Your task to perform on an android device: Clear the cart on walmart.com. Image 0: 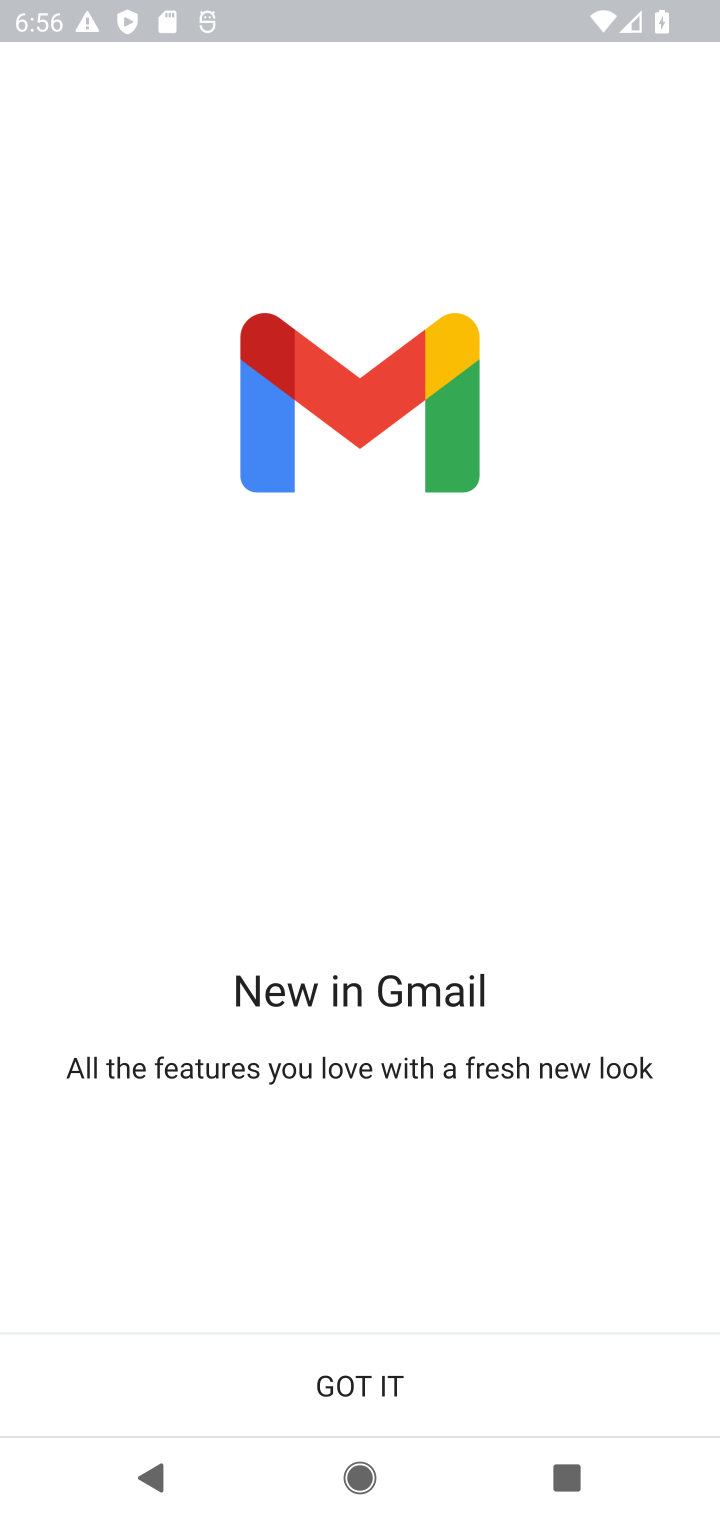
Step 0: press home button
Your task to perform on an android device: Clear the cart on walmart.com. Image 1: 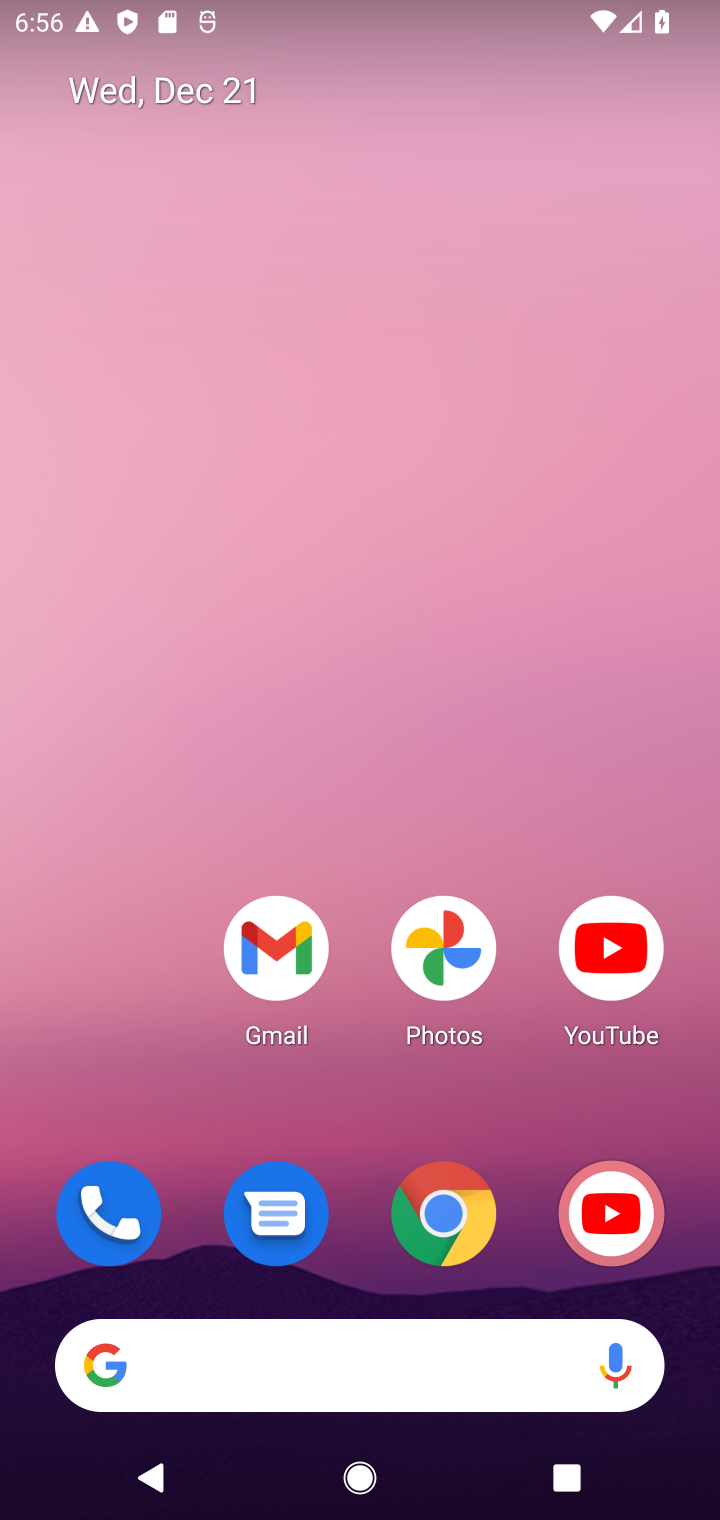
Step 1: click (436, 1191)
Your task to perform on an android device: Clear the cart on walmart.com. Image 2: 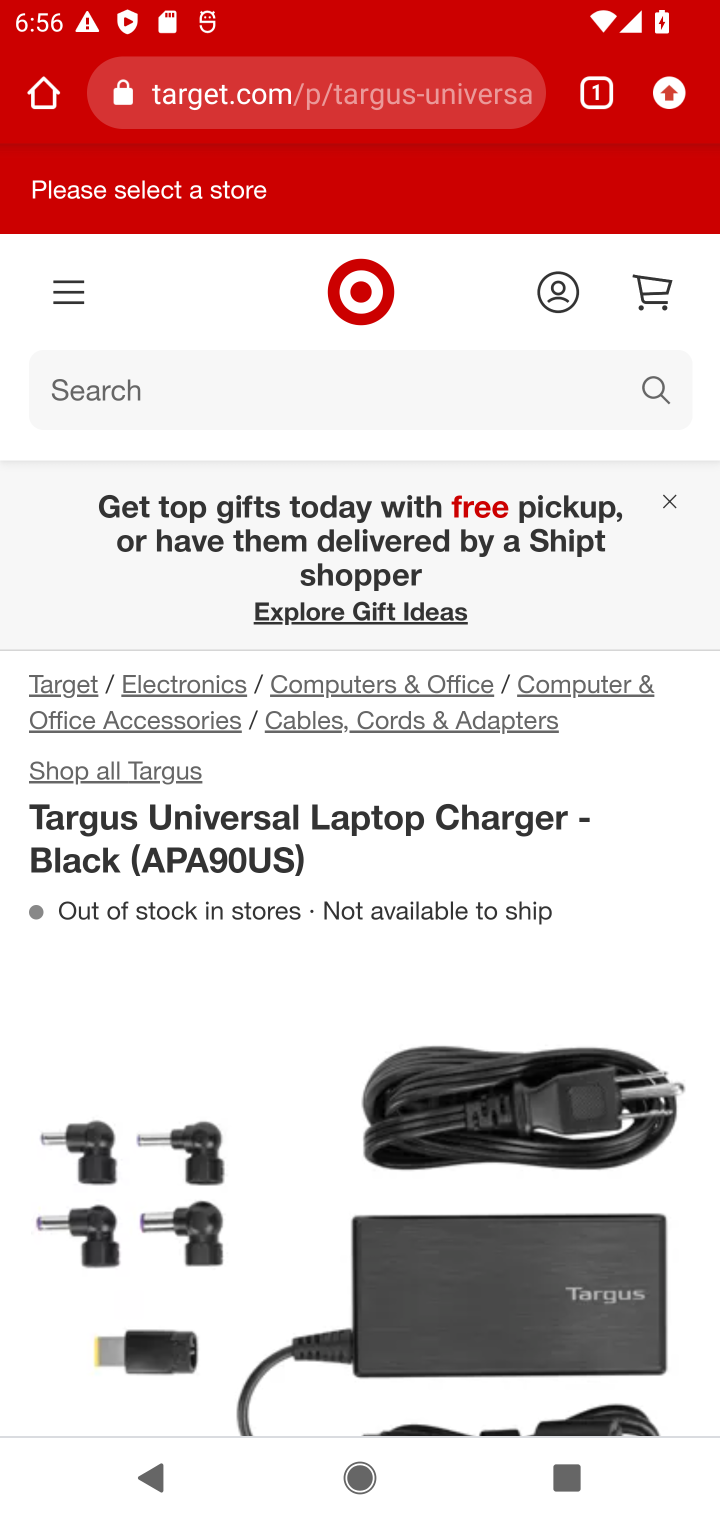
Step 2: click (291, 108)
Your task to perform on an android device: Clear the cart on walmart.com. Image 3: 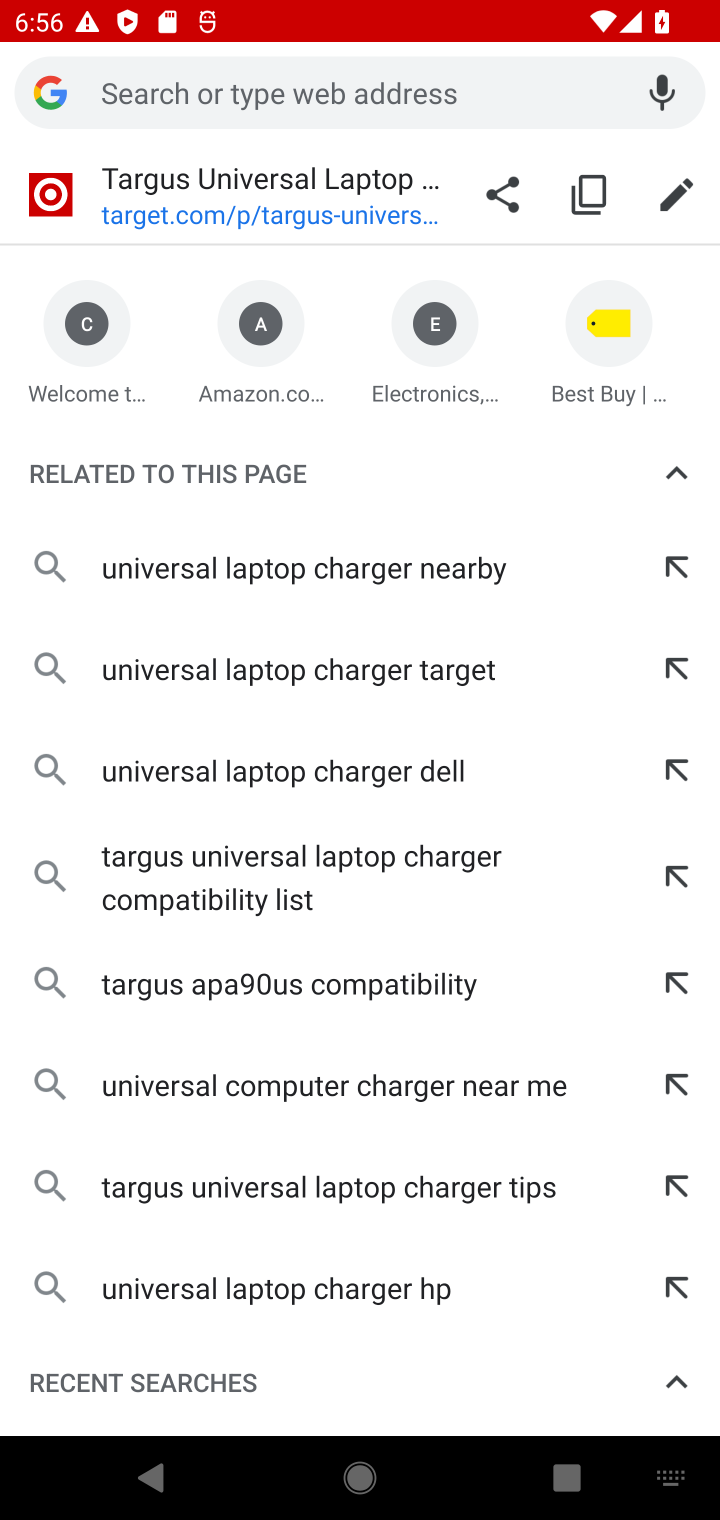
Step 3: type "walmart"
Your task to perform on an android device: Clear the cart on walmart.com. Image 4: 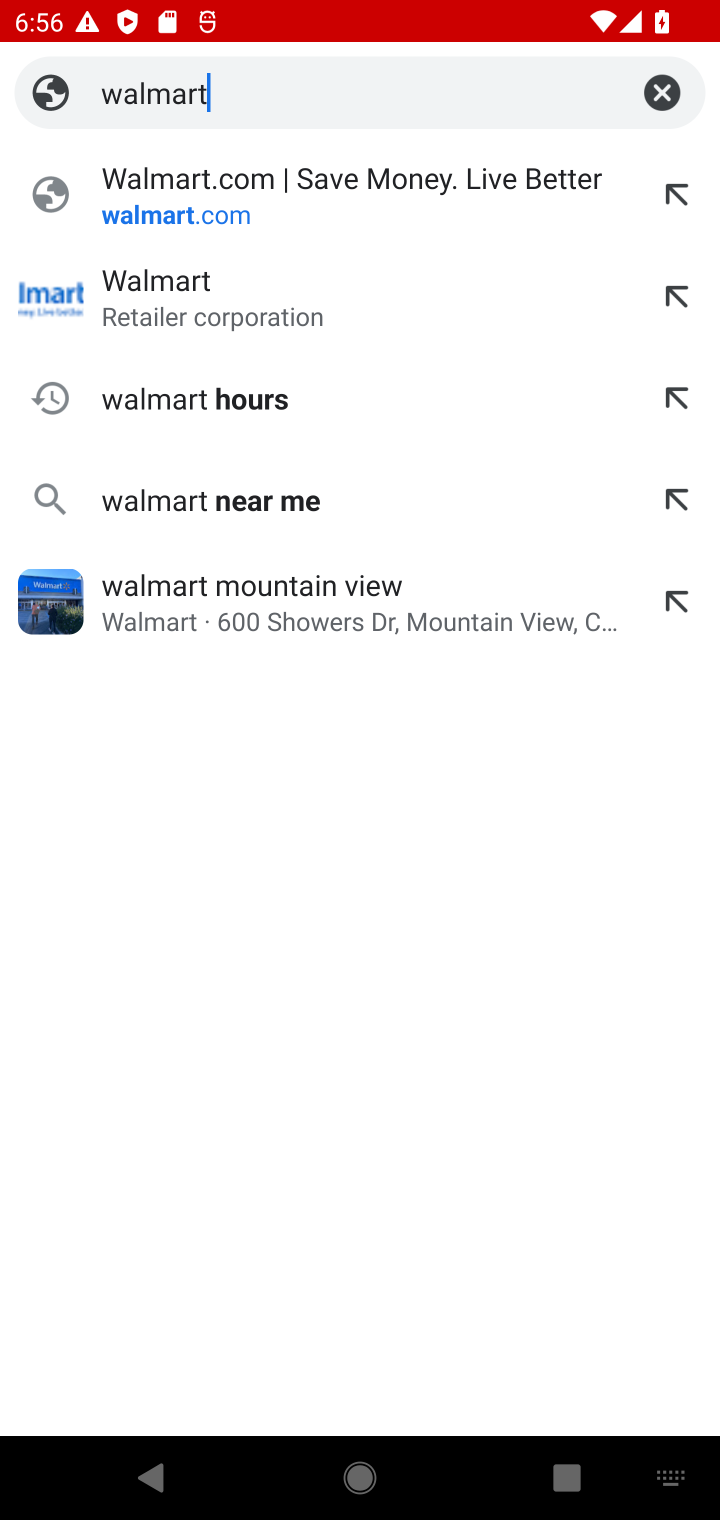
Step 4: click (230, 170)
Your task to perform on an android device: Clear the cart on walmart.com. Image 5: 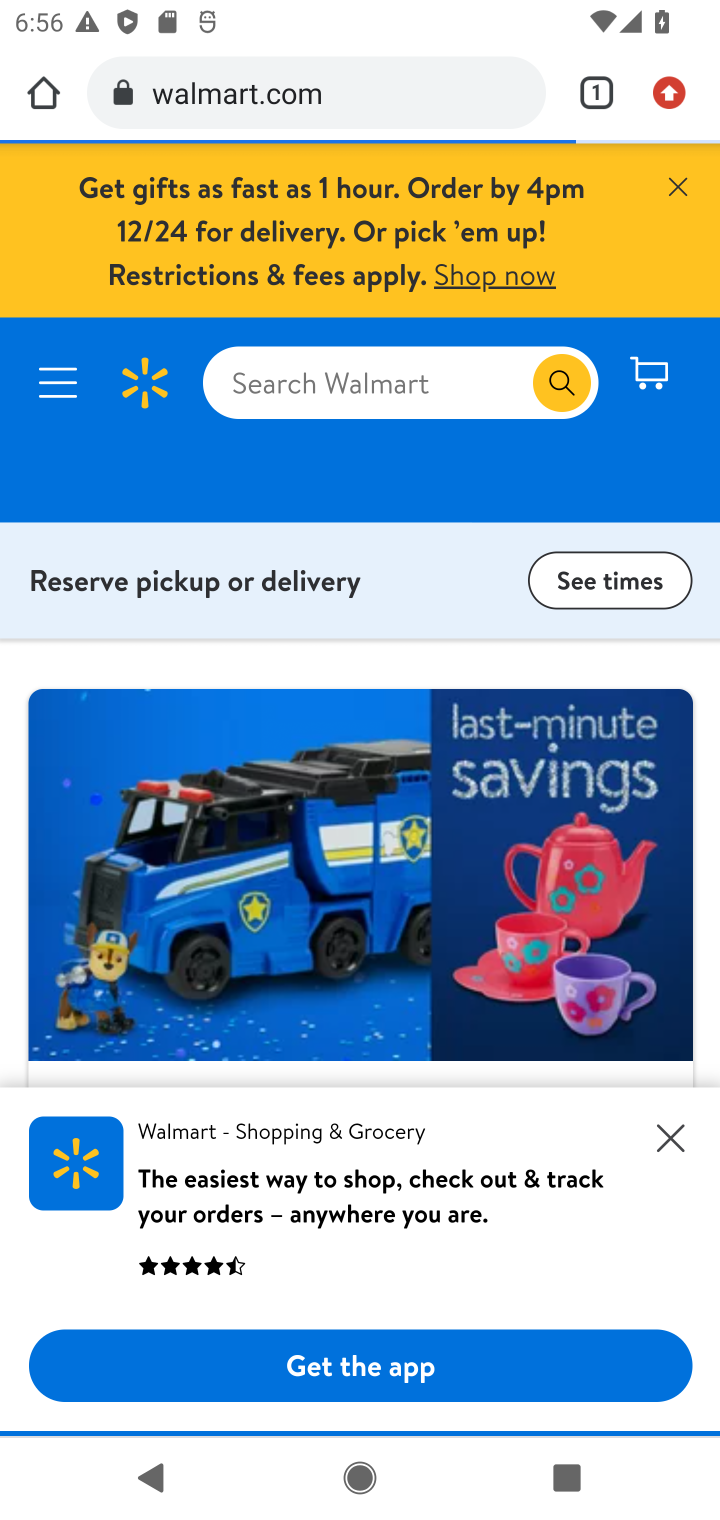
Step 5: click (670, 190)
Your task to perform on an android device: Clear the cart on walmart.com. Image 6: 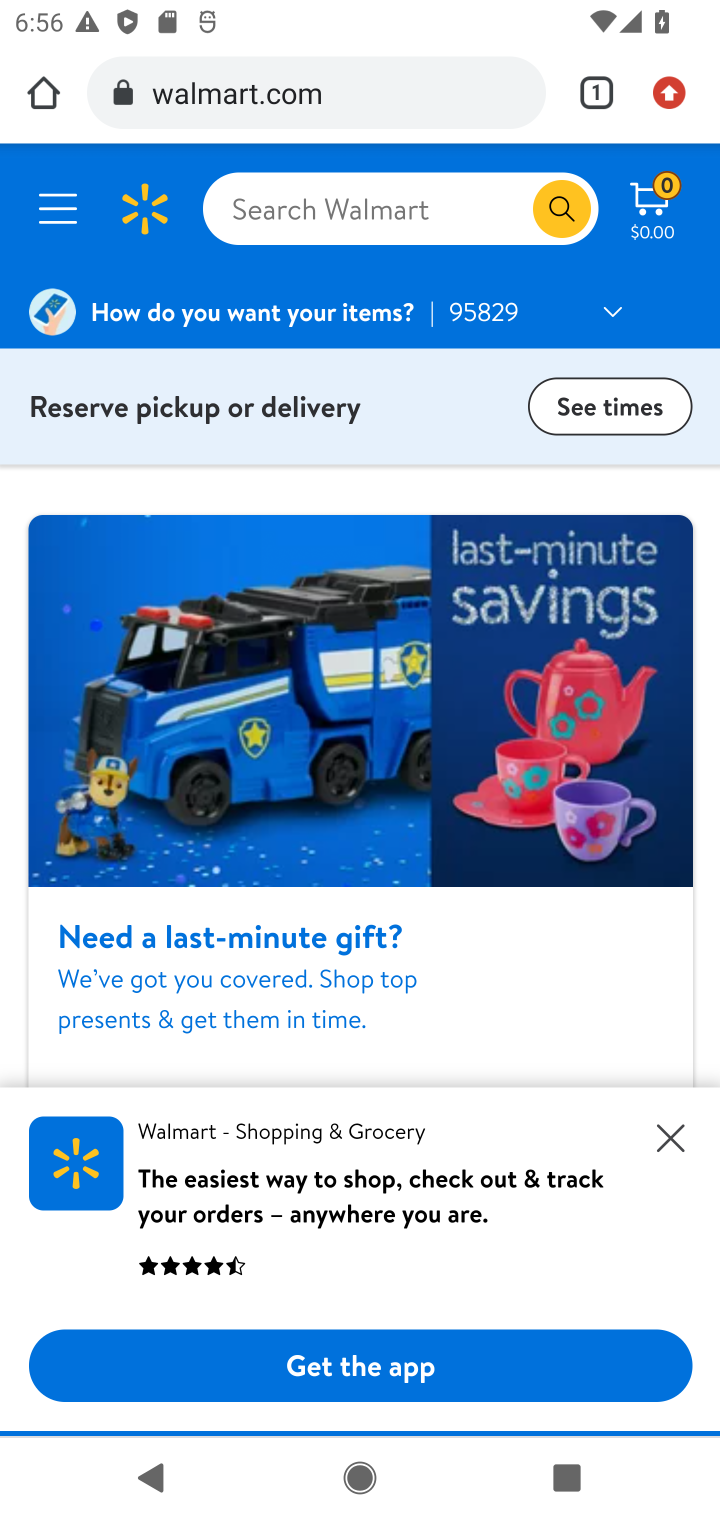
Step 6: click (333, 405)
Your task to perform on an android device: Clear the cart on walmart.com. Image 7: 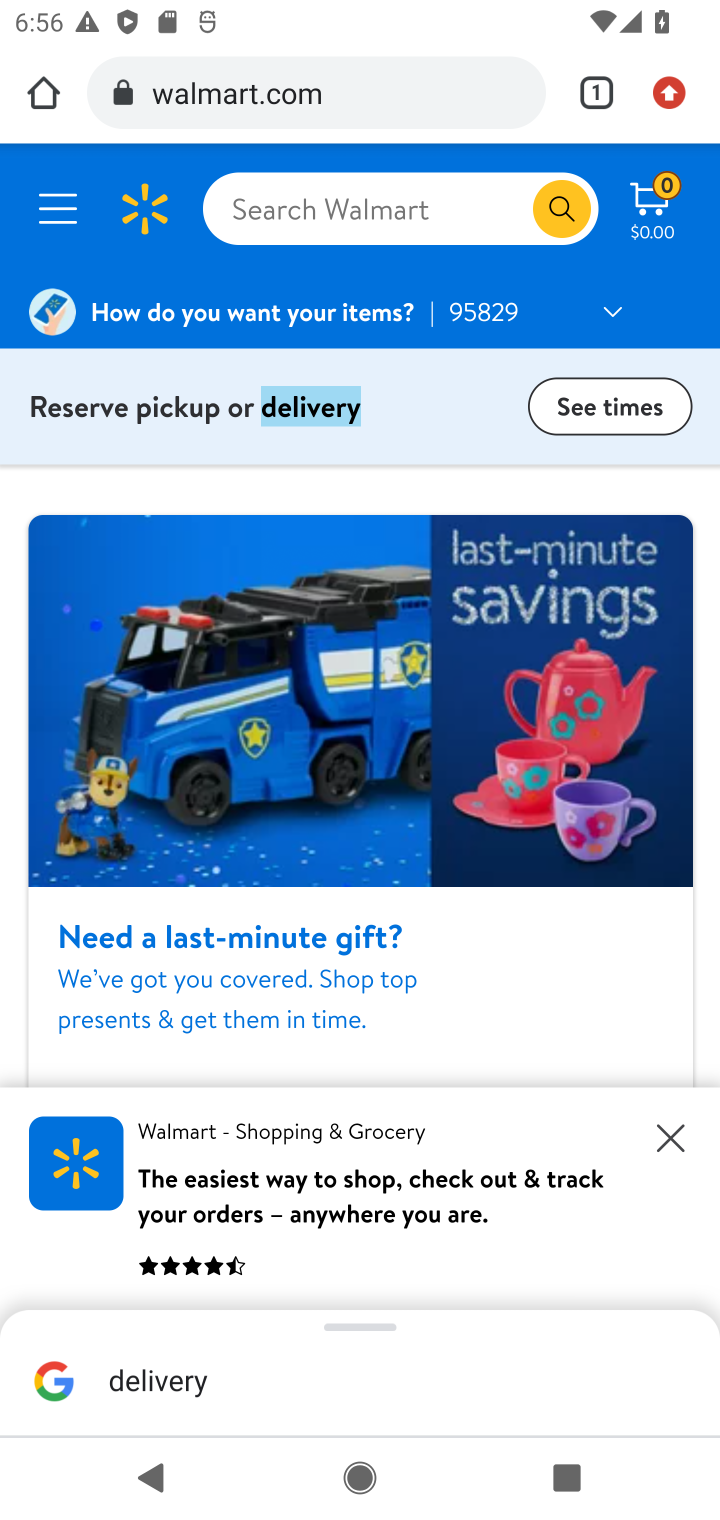
Step 7: click (388, 220)
Your task to perform on an android device: Clear the cart on walmart.com. Image 8: 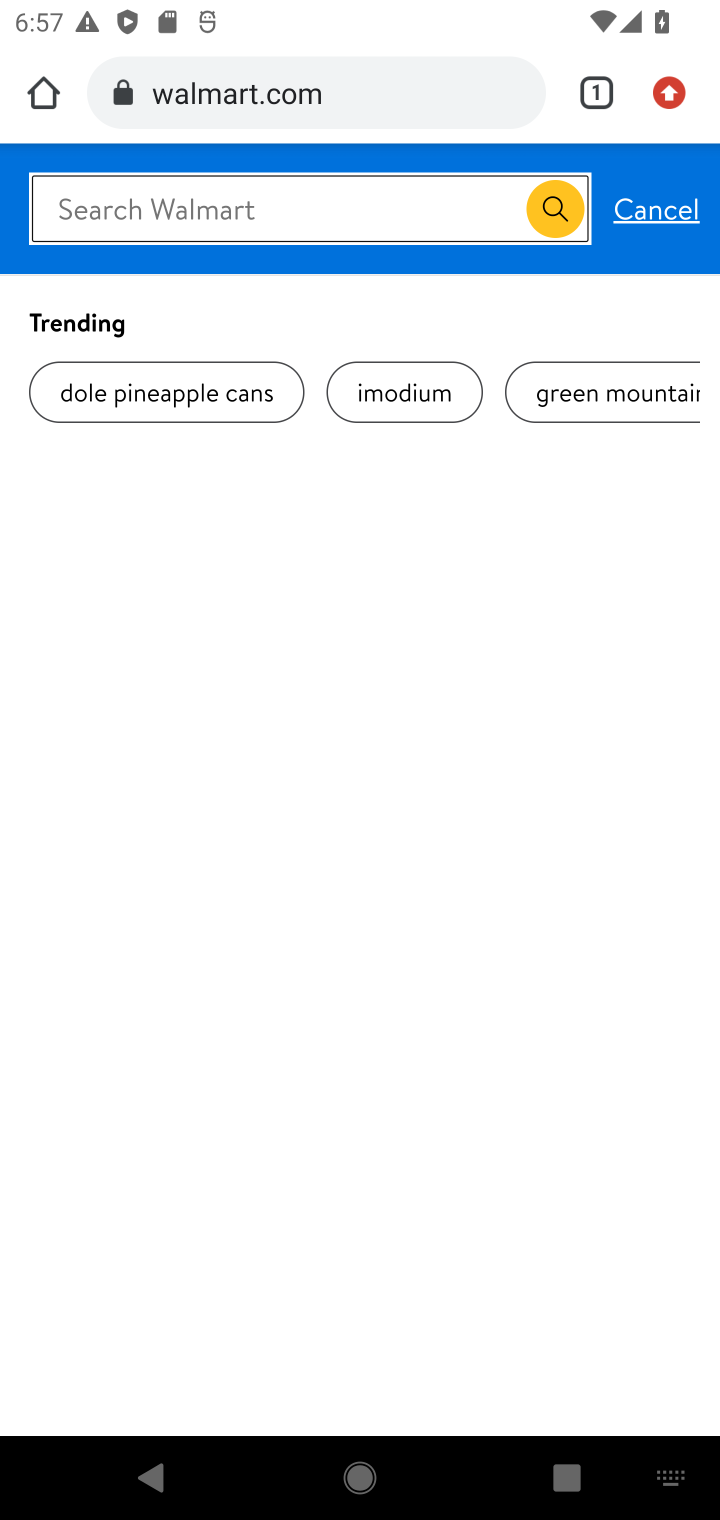
Step 8: click (630, 235)
Your task to perform on an android device: Clear the cart on walmart.com. Image 9: 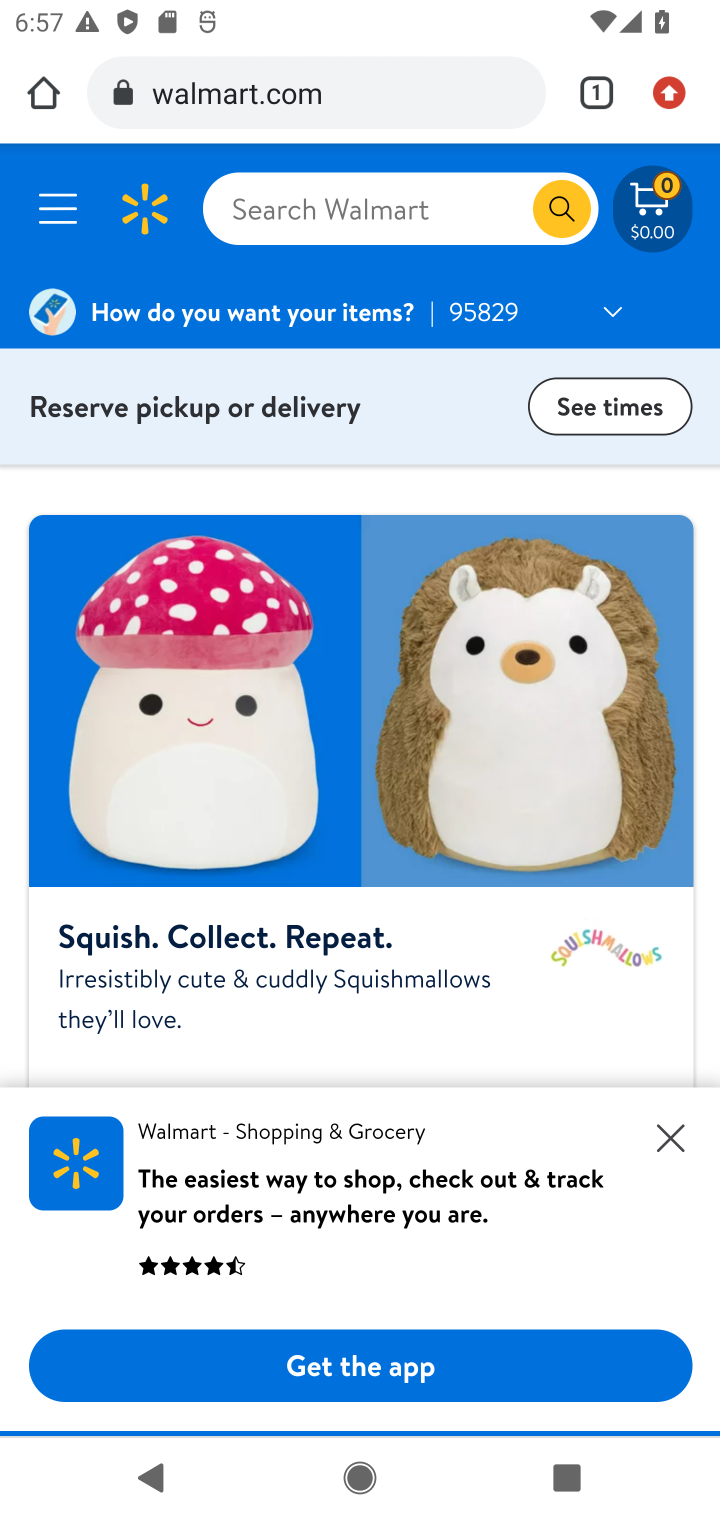
Step 9: task complete